Your task to perform on an android device: toggle pop-ups in chrome Image 0: 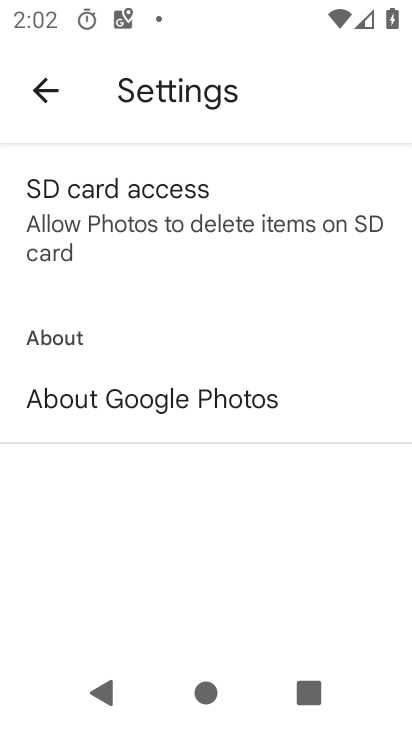
Step 0: press home button
Your task to perform on an android device: toggle pop-ups in chrome Image 1: 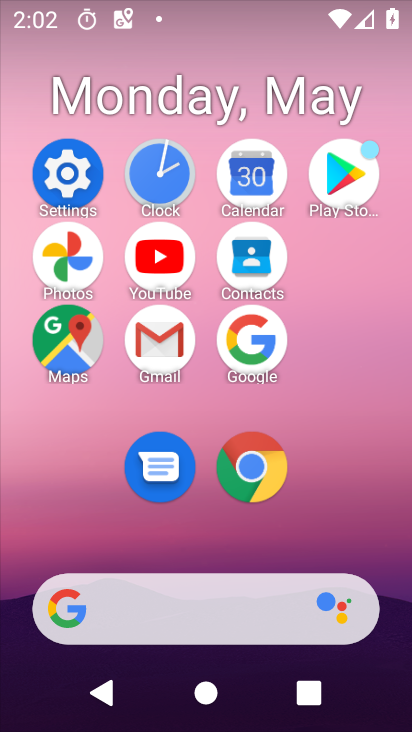
Step 1: click (250, 486)
Your task to perform on an android device: toggle pop-ups in chrome Image 2: 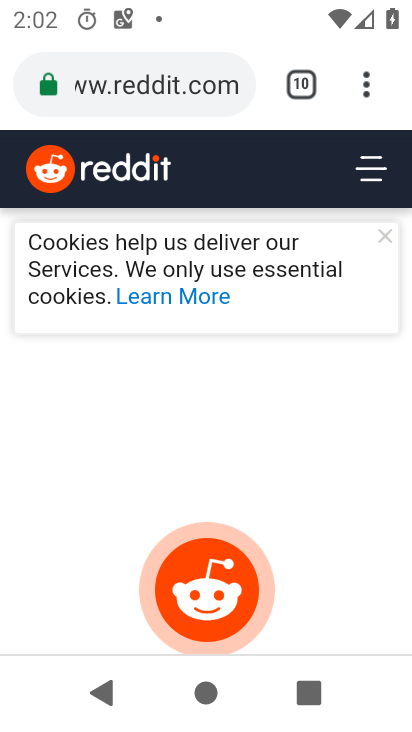
Step 2: click (367, 65)
Your task to perform on an android device: toggle pop-ups in chrome Image 3: 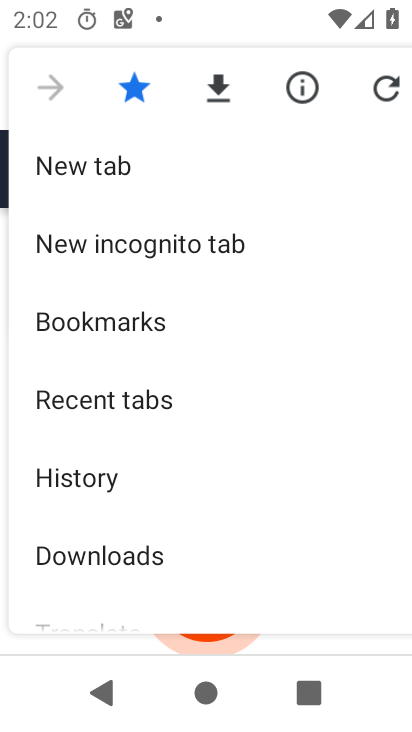
Step 3: drag from (202, 505) to (214, 206)
Your task to perform on an android device: toggle pop-ups in chrome Image 4: 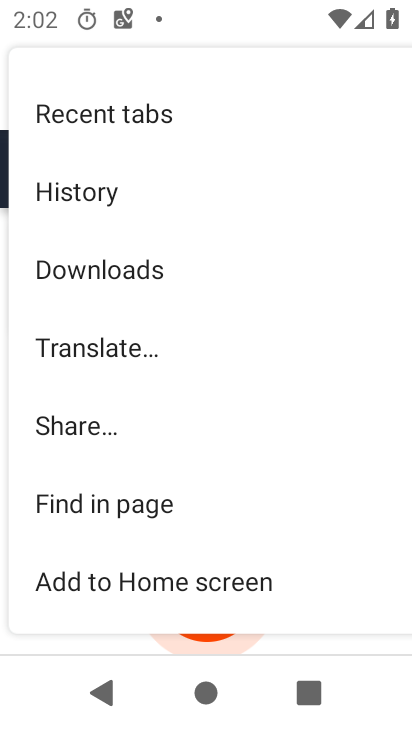
Step 4: drag from (115, 582) to (175, 229)
Your task to perform on an android device: toggle pop-ups in chrome Image 5: 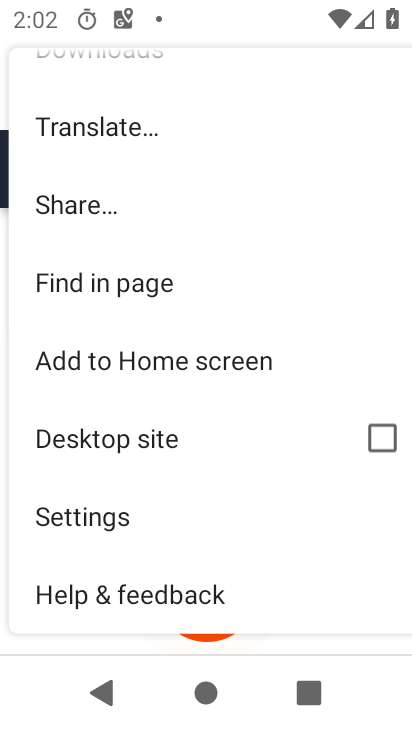
Step 5: click (164, 507)
Your task to perform on an android device: toggle pop-ups in chrome Image 6: 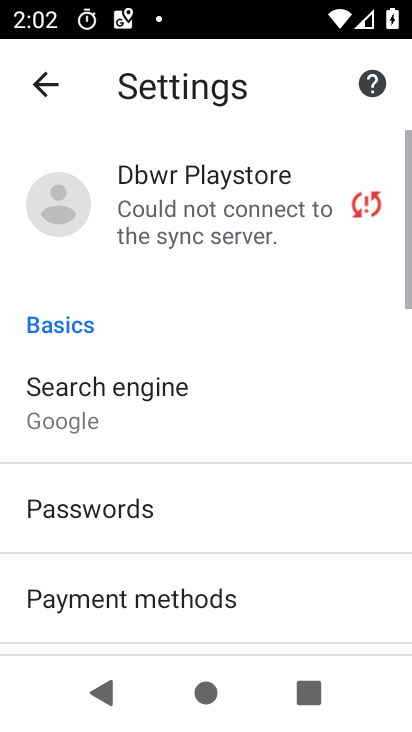
Step 6: drag from (157, 477) to (188, 168)
Your task to perform on an android device: toggle pop-ups in chrome Image 7: 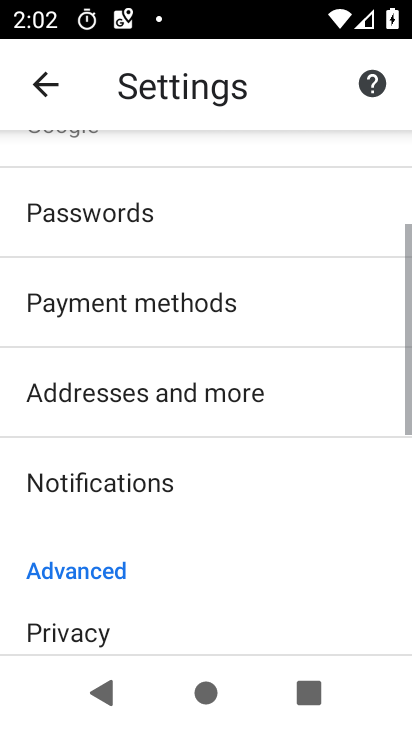
Step 7: drag from (134, 541) to (178, 219)
Your task to perform on an android device: toggle pop-ups in chrome Image 8: 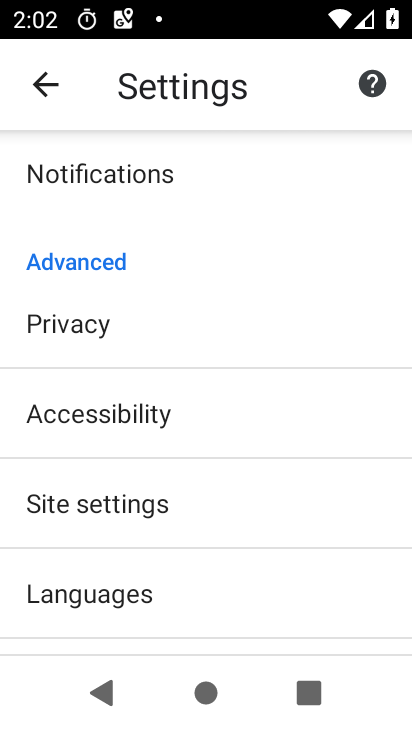
Step 8: click (163, 504)
Your task to perform on an android device: toggle pop-ups in chrome Image 9: 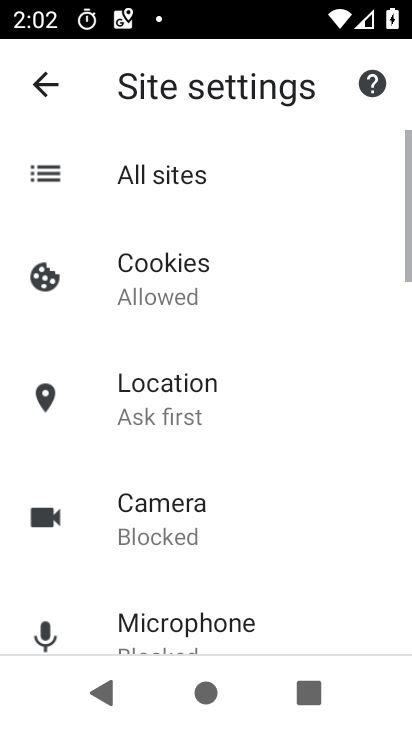
Step 9: drag from (161, 501) to (163, 190)
Your task to perform on an android device: toggle pop-ups in chrome Image 10: 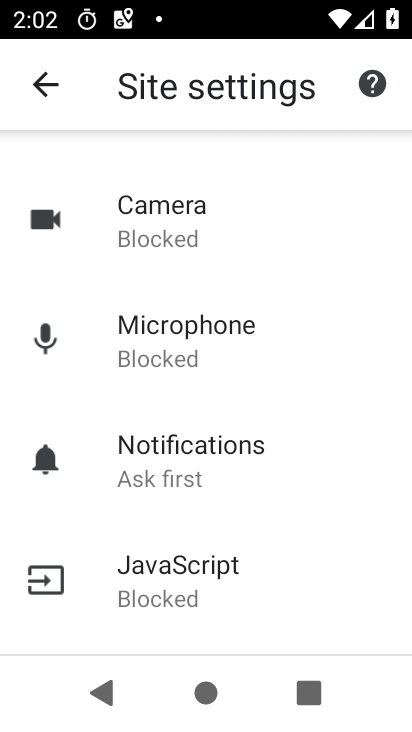
Step 10: drag from (206, 531) to (204, 236)
Your task to perform on an android device: toggle pop-ups in chrome Image 11: 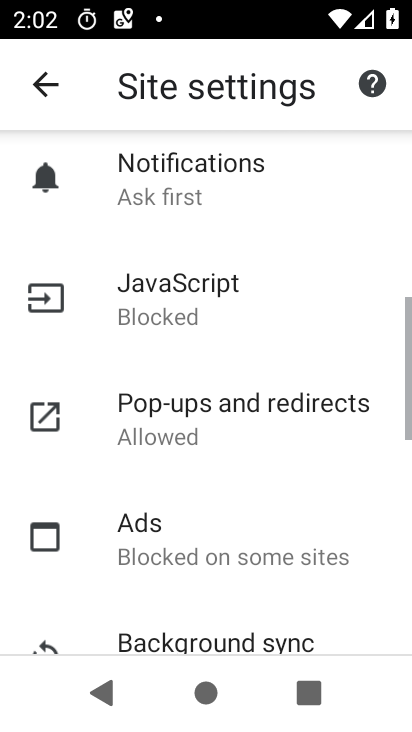
Step 11: click (196, 407)
Your task to perform on an android device: toggle pop-ups in chrome Image 12: 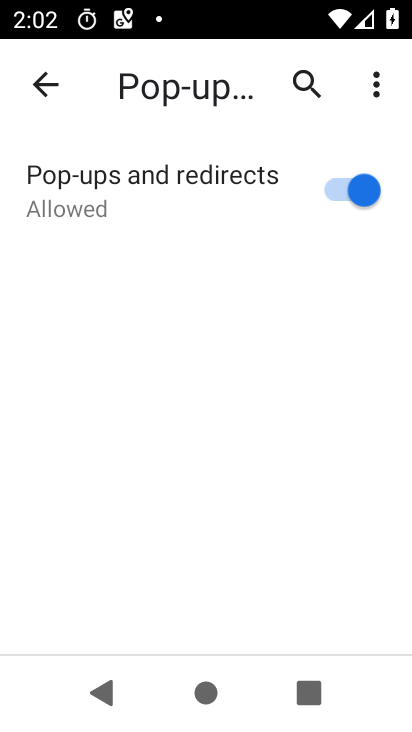
Step 12: click (347, 188)
Your task to perform on an android device: toggle pop-ups in chrome Image 13: 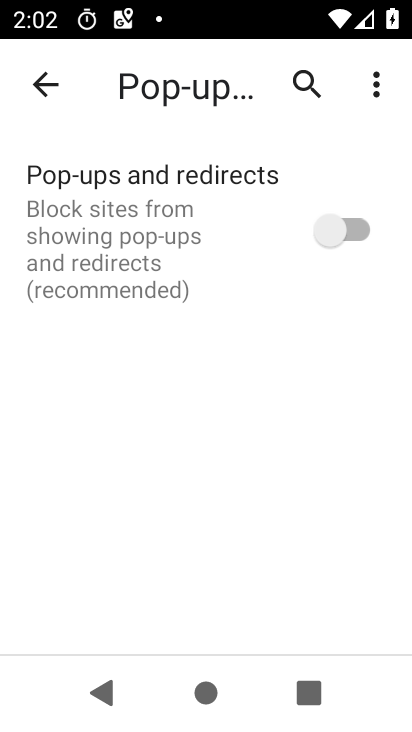
Step 13: task complete